Your task to perform on an android device: install app "YouTube Kids" Image 0: 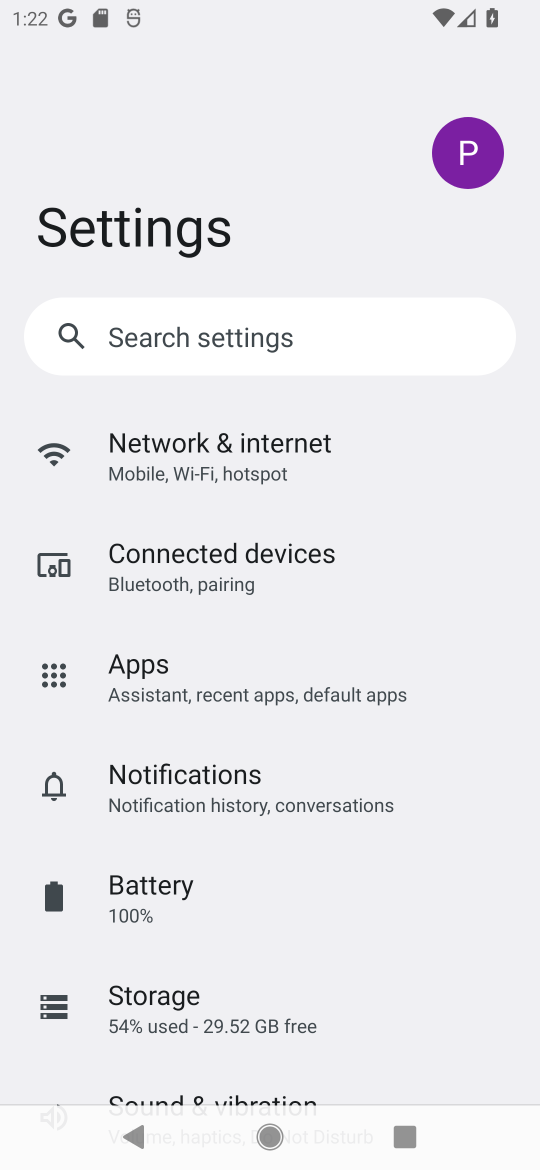
Step 0: press back button
Your task to perform on an android device: install app "YouTube Kids" Image 1: 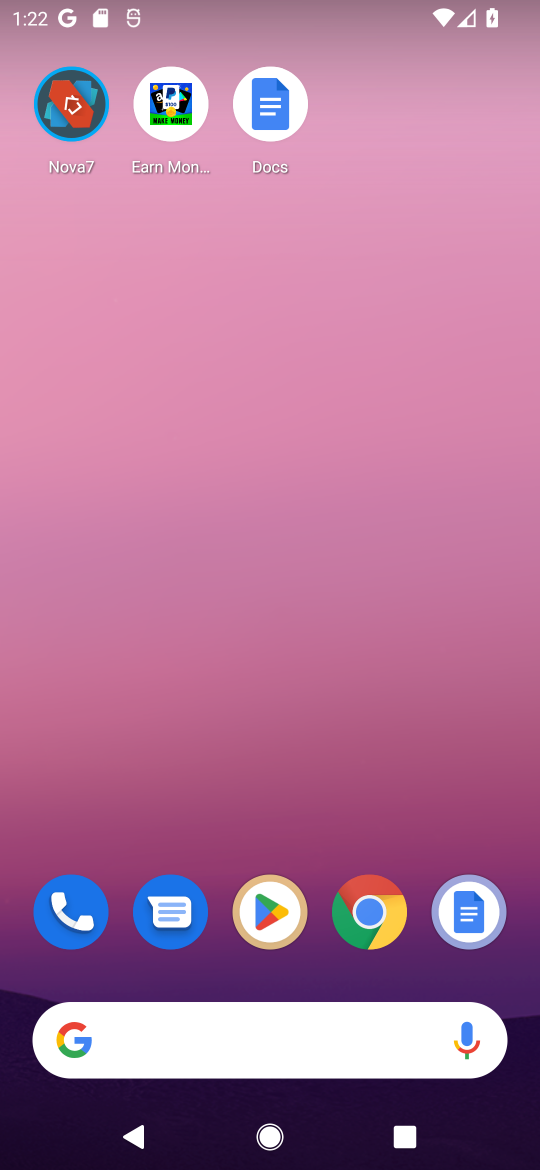
Step 1: click (276, 901)
Your task to perform on an android device: install app "YouTube Kids" Image 2: 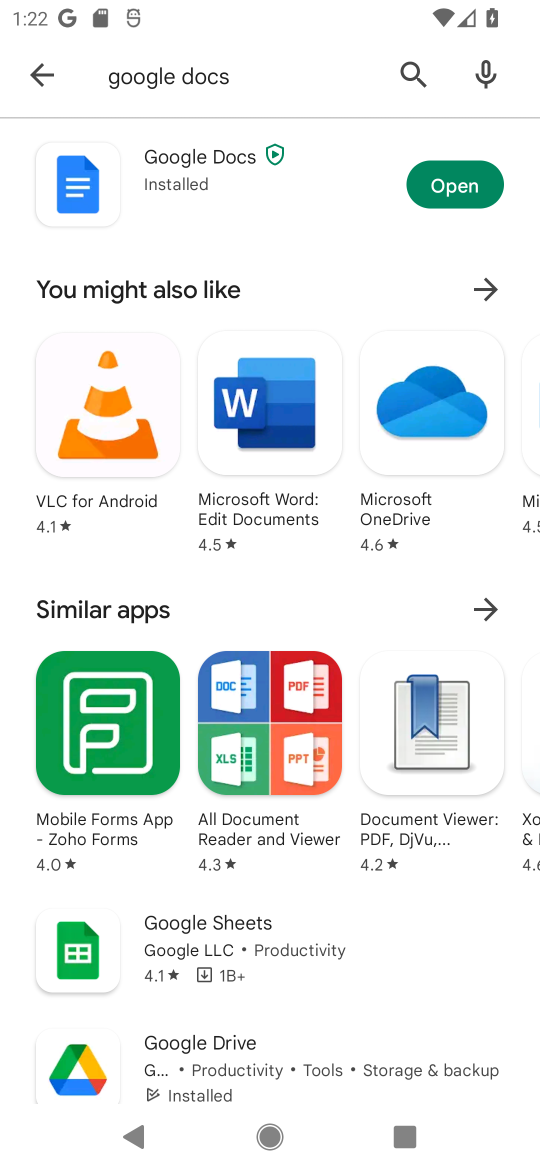
Step 2: click (418, 58)
Your task to perform on an android device: install app "YouTube Kids" Image 3: 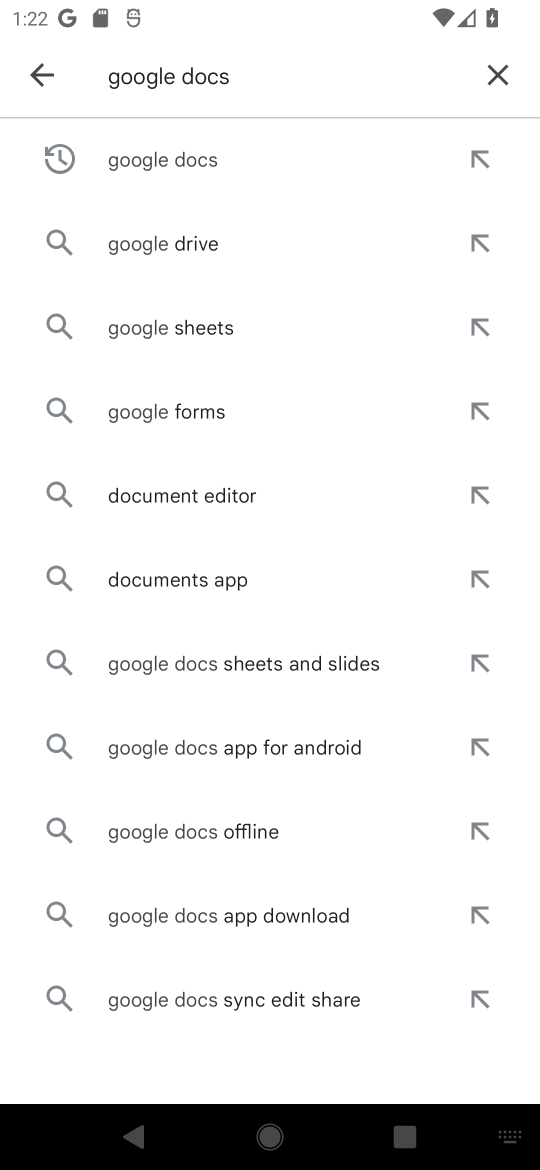
Step 3: click (507, 66)
Your task to perform on an android device: install app "YouTube Kids" Image 4: 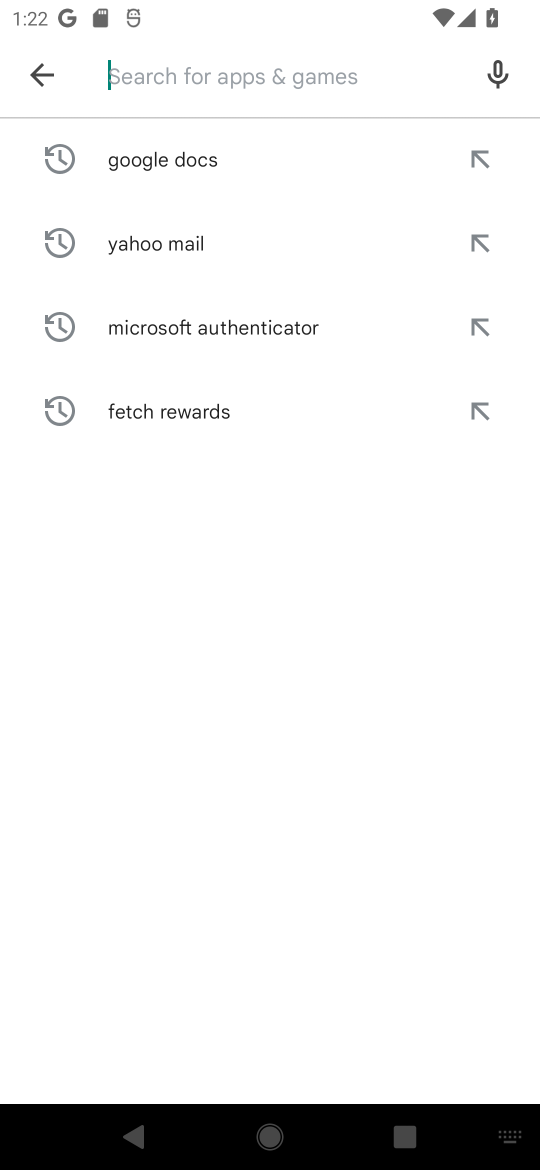
Step 4: click (128, 82)
Your task to perform on an android device: install app "YouTube Kids" Image 5: 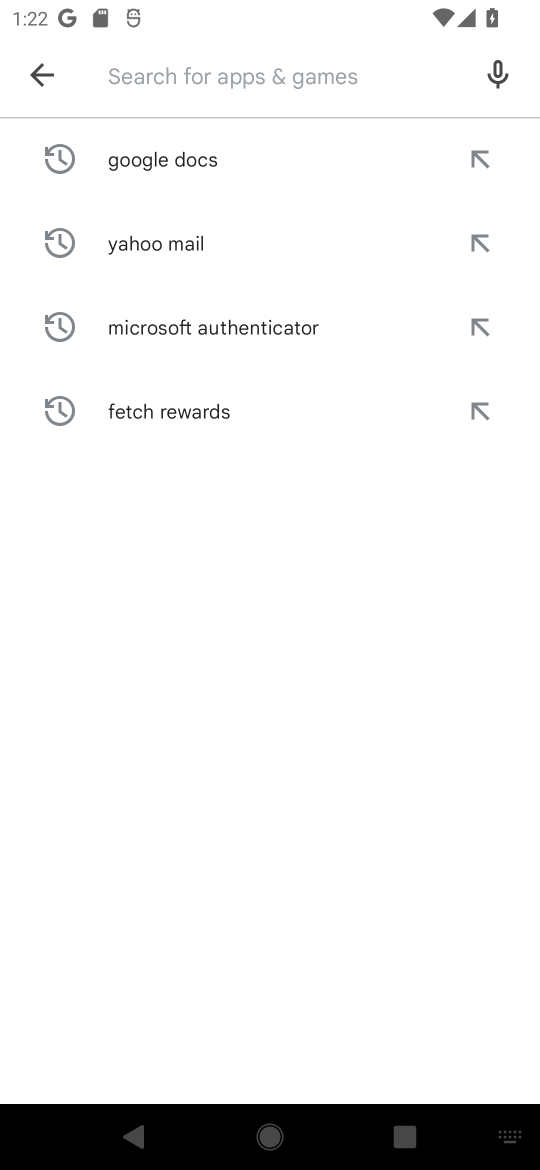
Step 5: type "YouTube Kids"
Your task to perform on an android device: install app "YouTube Kids" Image 6: 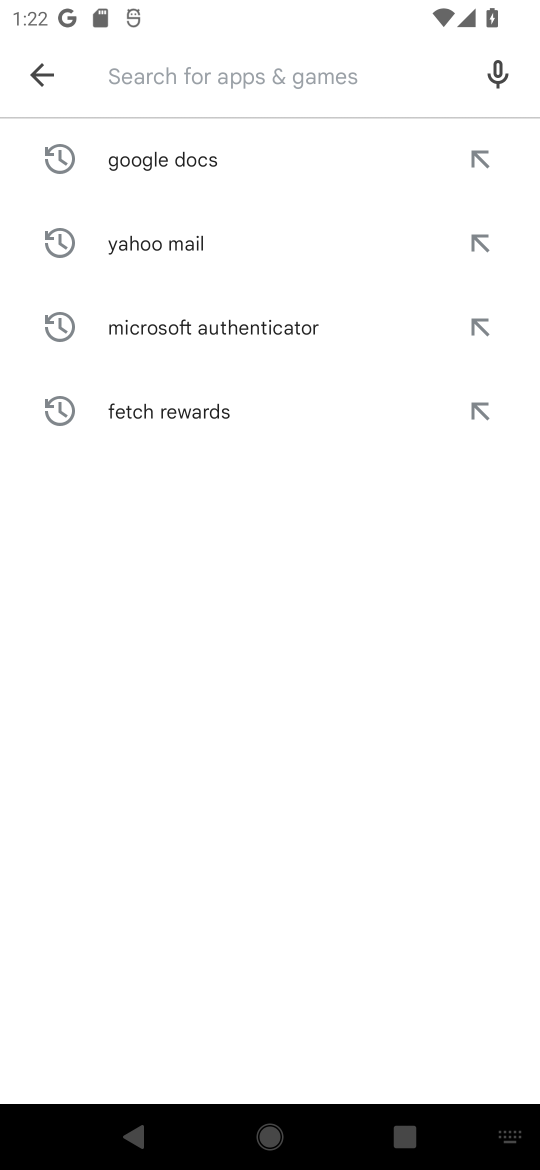
Step 6: click (273, 673)
Your task to perform on an android device: install app "YouTube Kids" Image 7: 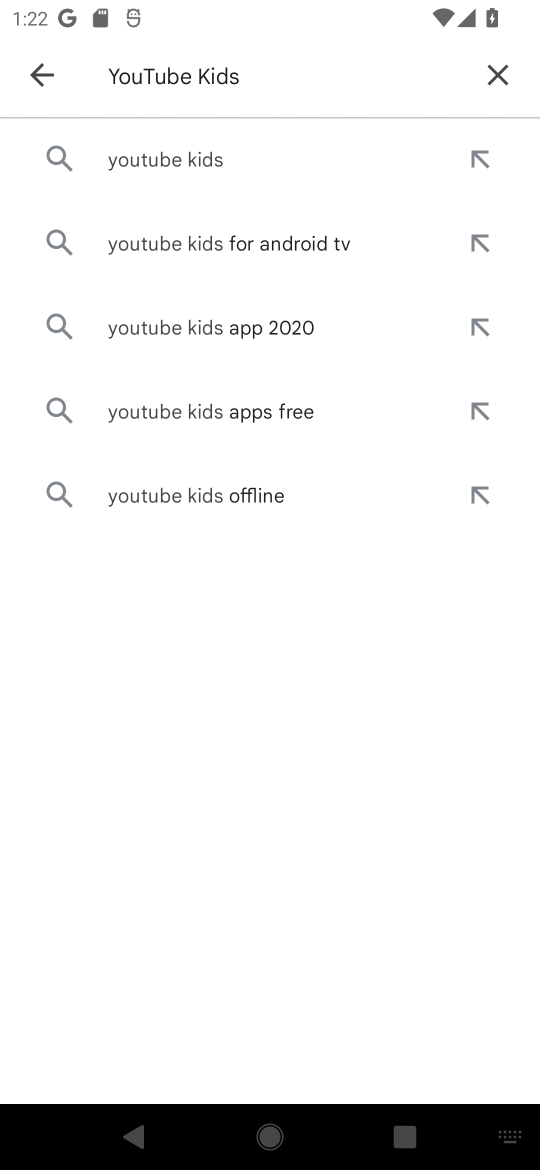
Step 7: click (220, 142)
Your task to perform on an android device: install app "YouTube Kids" Image 8: 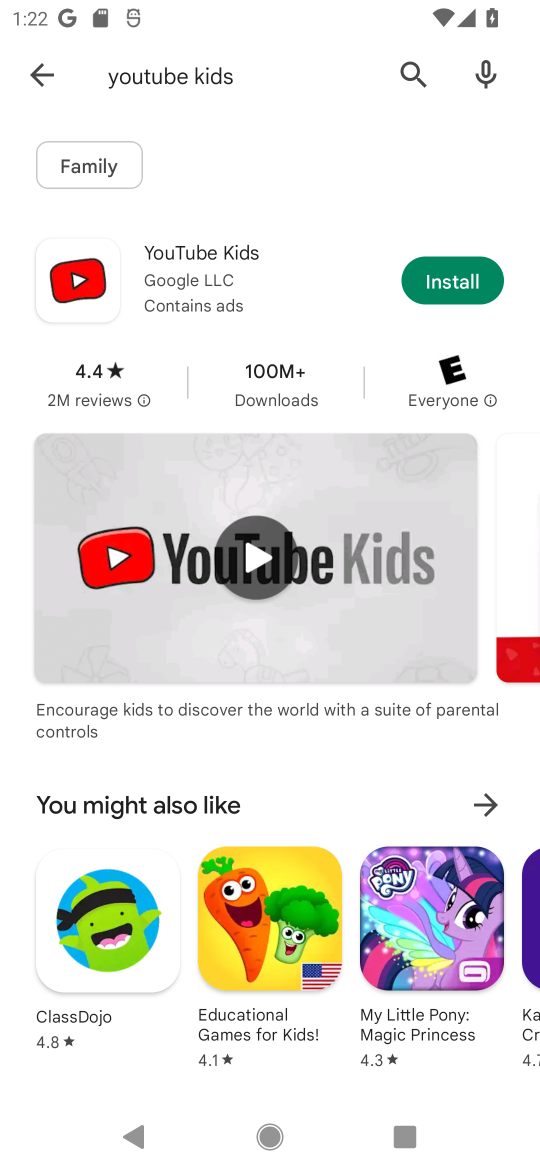
Step 8: click (444, 288)
Your task to perform on an android device: install app "YouTube Kids" Image 9: 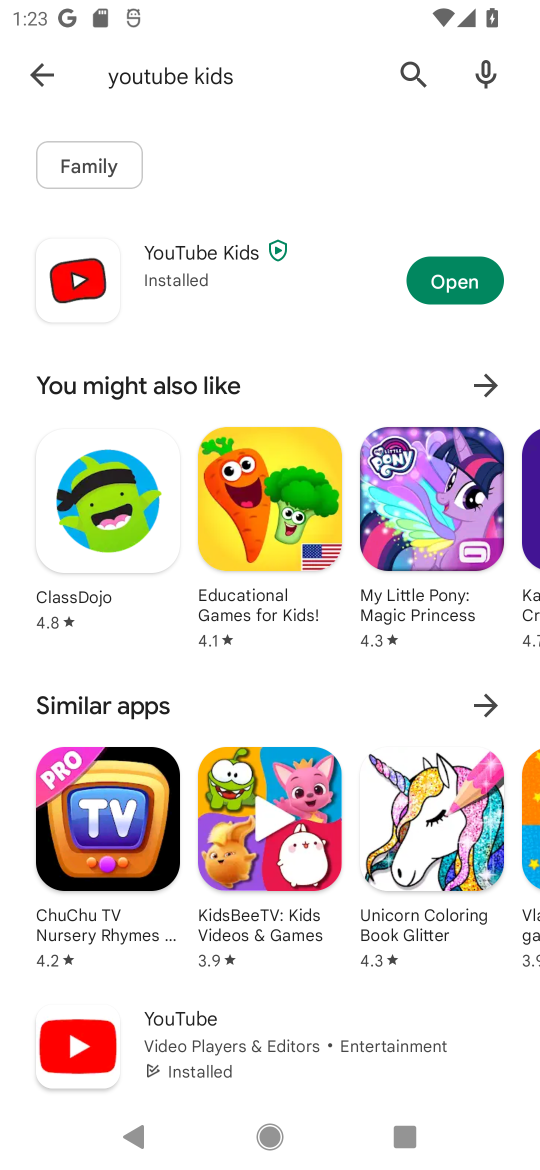
Step 9: task complete